Your task to perform on an android device: remove spam from my inbox in the gmail app Image 0: 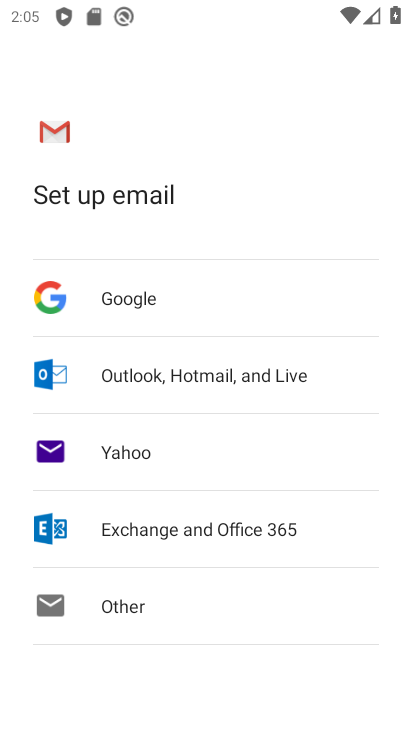
Step 0: press home button
Your task to perform on an android device: remove spam from my inbox in the gmail app Image 1: 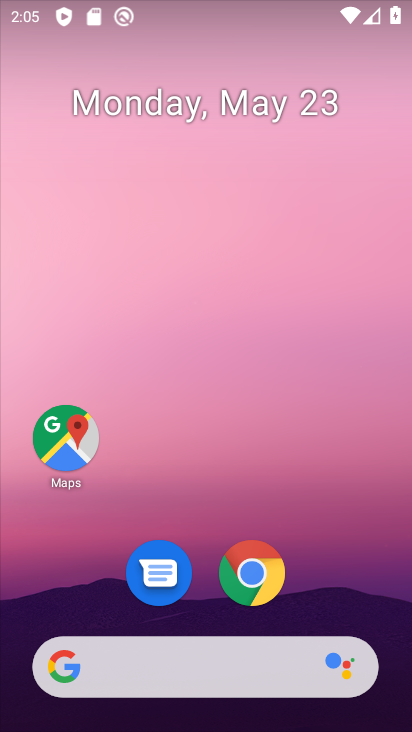
Step 1: drag from (337, 546) to (362, 34)
Your task to perform on an android device: remove spam from my inbox in the gmail app Image 2: 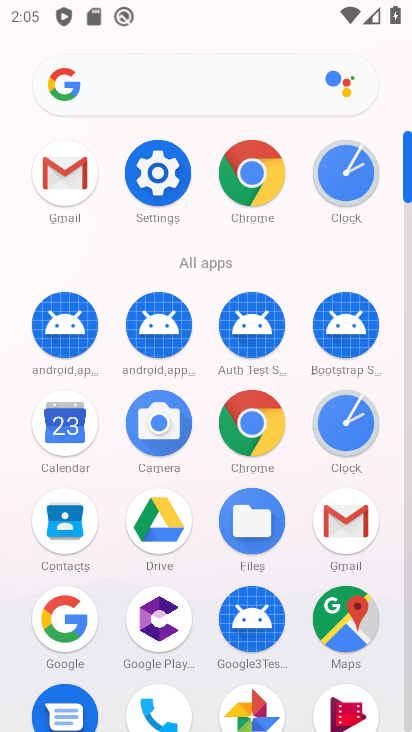
Step 2: click (61, 165)
Your task to perform on an android device: remove spam from my inbox in the gmail app Image 3: 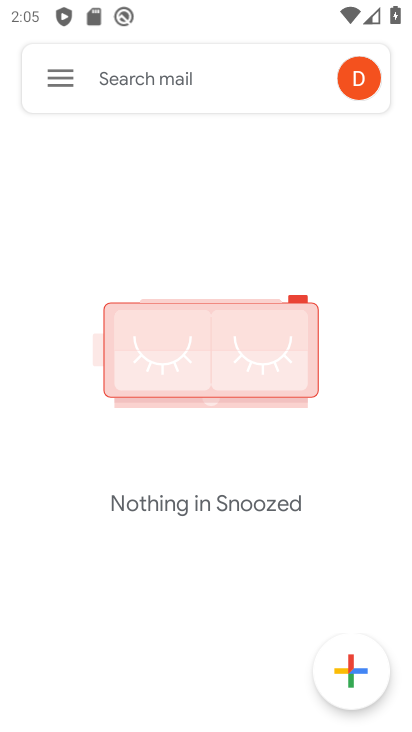
Step 3: click (53, 62)
Your task to perform on an android device: remove spam from my inbox in the gmail app Image 4: 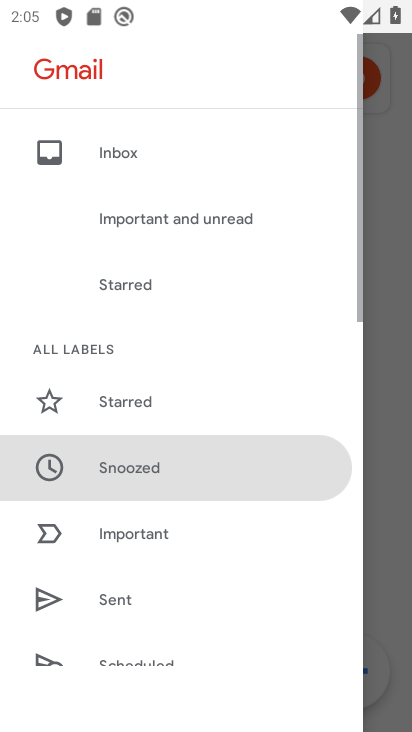
Step 4: click (112, 177)
Your task to perform on an android device: remove spam from my inbox in the gmail app Image 5: 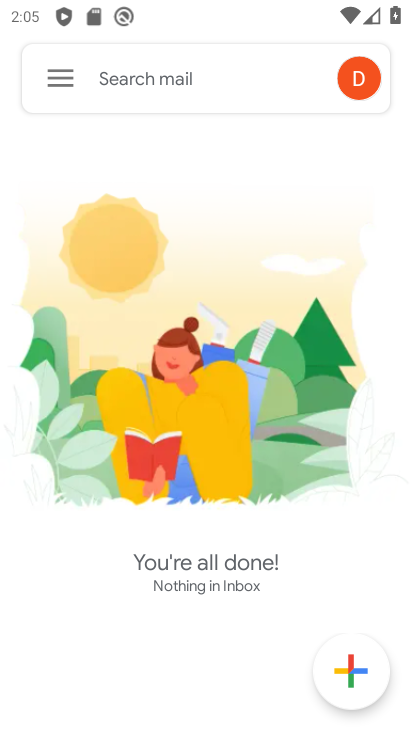
Step 5: task complete